Your task to perform on an android device: check the backup settings in the google photos Image 0: 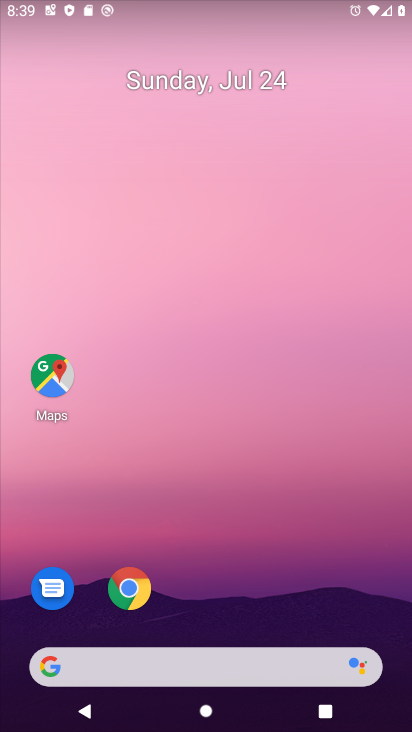
Step 0: drag from (310, 500) to (226, 19)
Your task to perform on an android device: check the backup settings in the google photos Image 1: 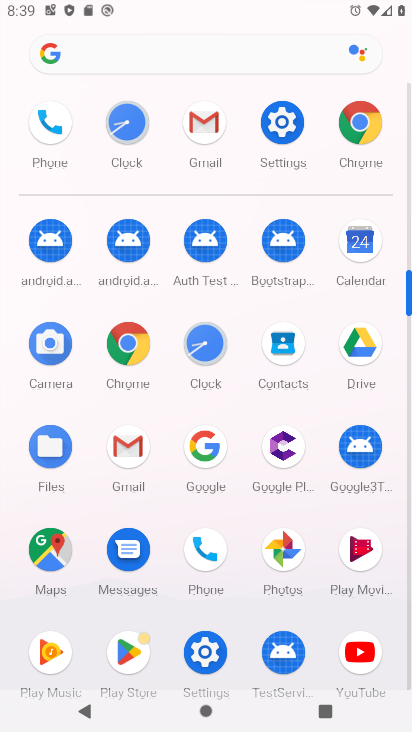
Step 1: click (273, 557)
Your task to perform on an android device: check the backup settings in the google photos Image 2: 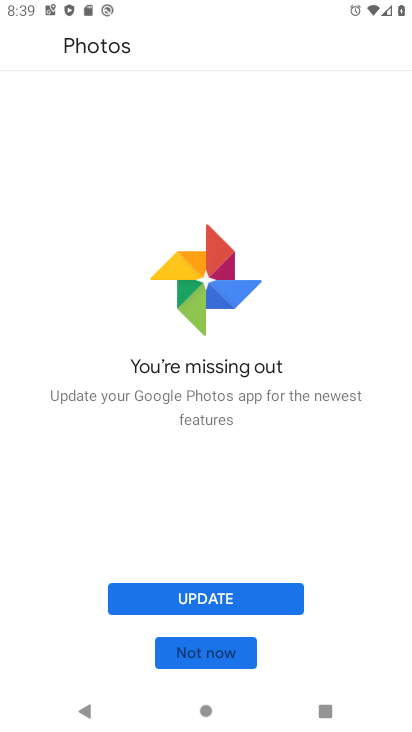
Step 2: click (257, 604)
Your task to perform on an android device: check the backup settings in the google photos Image 3: 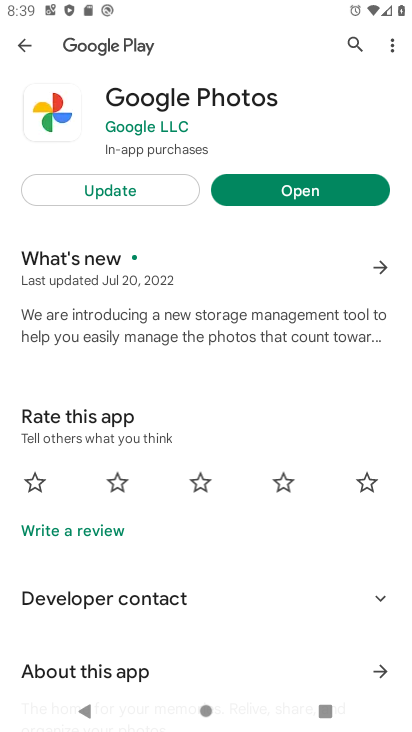
Step 3: click (86, 206)
Your task to perform on an android device: check the backup settings in the google photos Image 4: 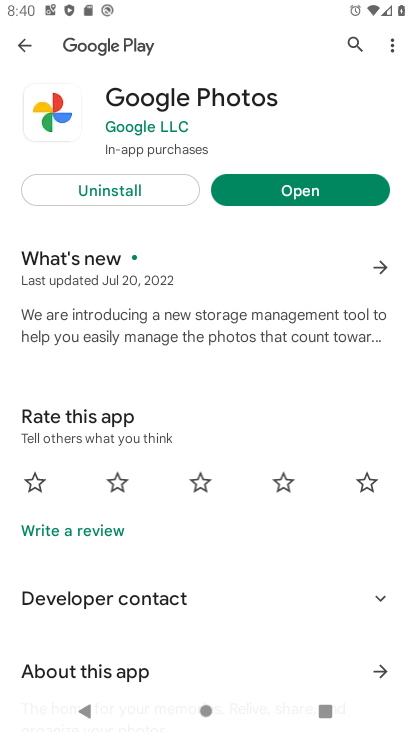
Step 4: click (343, 194)
Your task to perform on an android device: check the backup settings in the google photos Image 5: 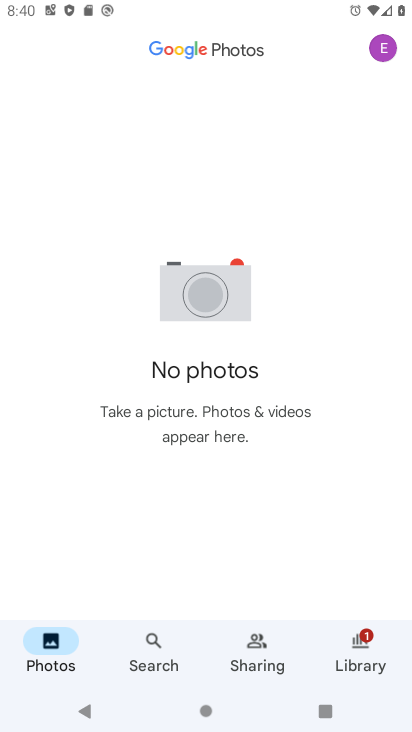
Step 5: click (376, 48)
Your task to perform on an android device: check the backup settings in the google photos Image 6: 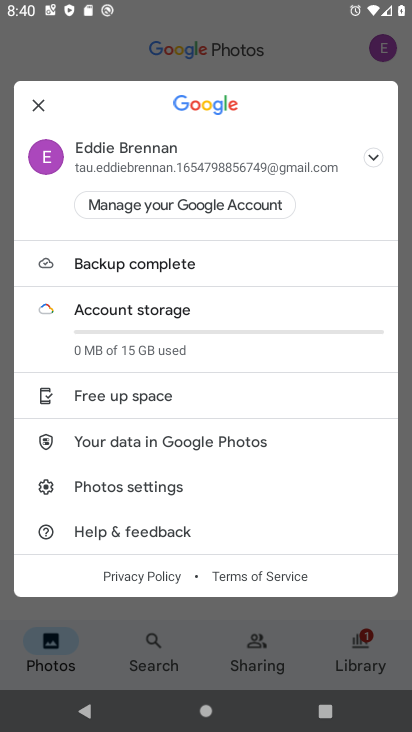
Step 6: click (106, 491)
Your task to perform on an android device: check the backup settings in the google photos Image 7: 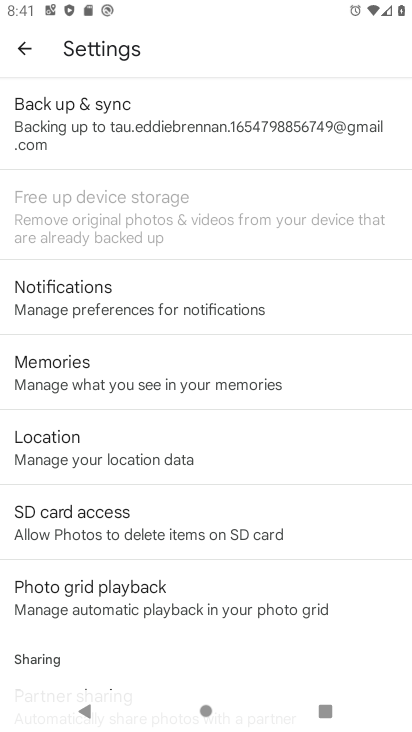
Step 7: click (40, 107)
Your task to perform on an android device: check the backup settings in the google photos Image 8: 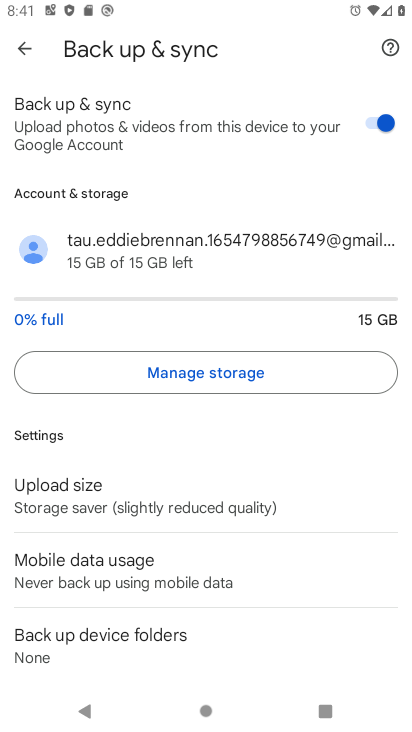
Step 8: task complete